Your task to perform on an android device: delete browsing data in the chrome app Image 0: 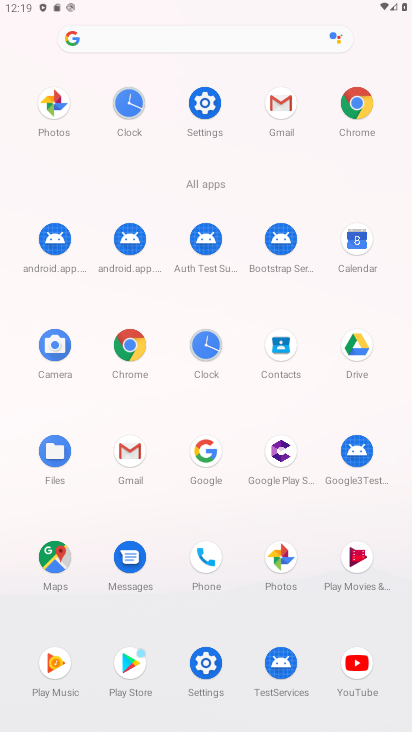
Step 0: click (126, 363)
Your task to perform on an android device: delete browsing data in the chrome app Image 1: 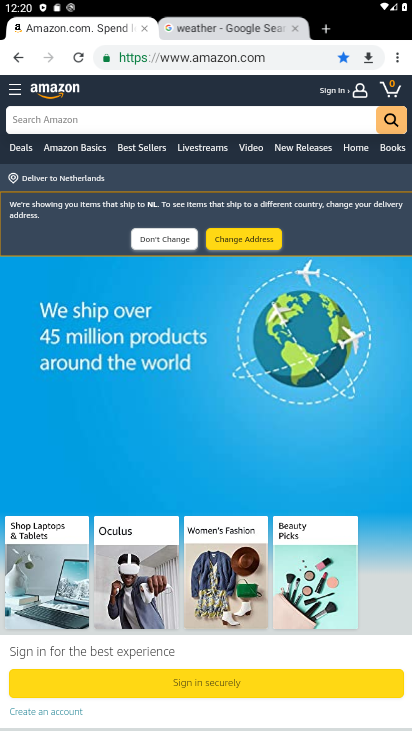
Step 1: click (399, 58)
Your task to perform on an android device: delete browsing data in the chrome app Image 2: 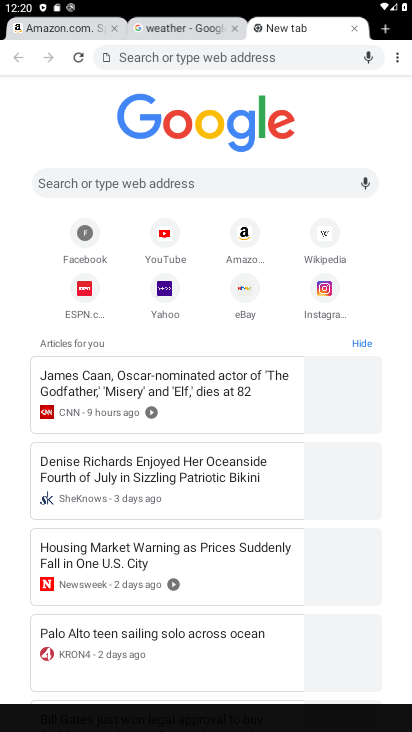
Step 2: click (399, 58)
Your task to perform on an android device: delete browsing data in the chrome app Image 3: 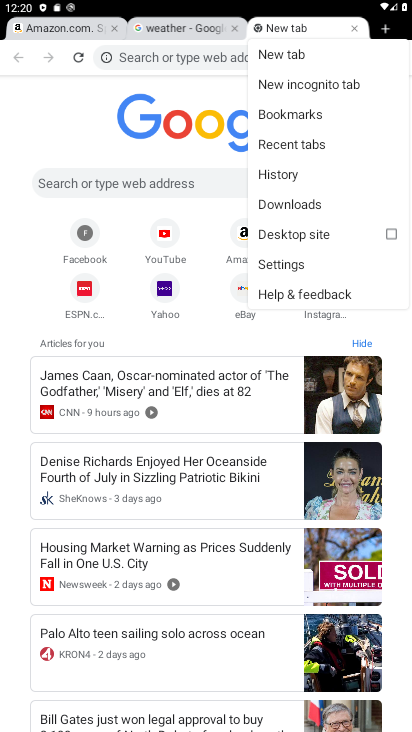
Step 3: click (294, 167)
Your task to perform on an android device: delete browsing data in the chrome app Image 4: 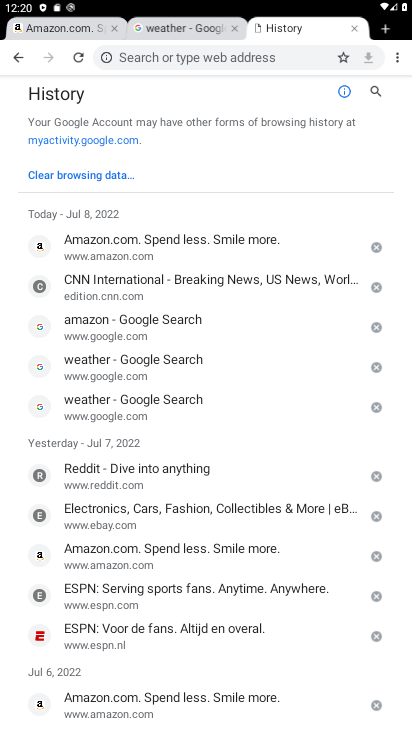
Step 4: click (125, 173)
Your task to perform on an android device: delete browsing data in the chrome app Image 5: 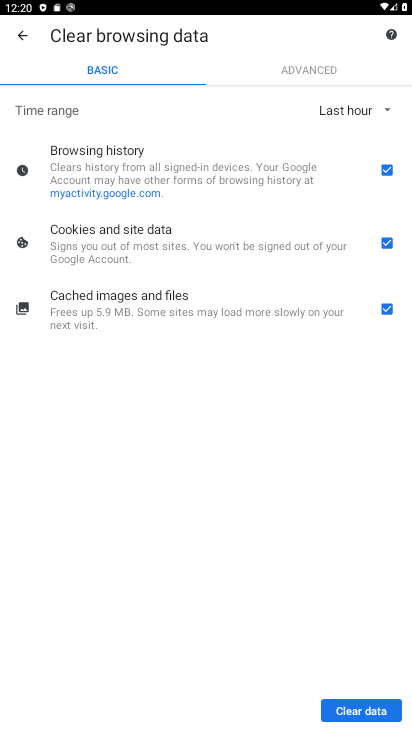
Step 5: click (356, 110)
Your task to perform on an android device: delete browsing data in the chrome app Image 6: 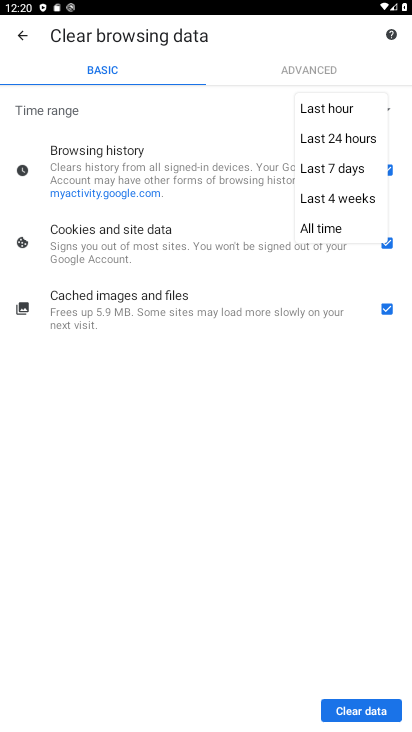
Step 6: click (331, 228)
Your task to perform on an android device: delete browsing data in the chrome app Image 7: 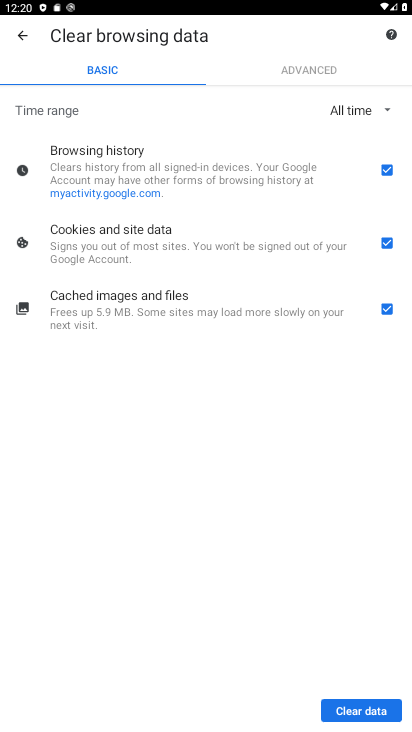
Step 7: click (379, 701)
Your task to perform on an android device: delete browsing data in the chrome app Image 8: 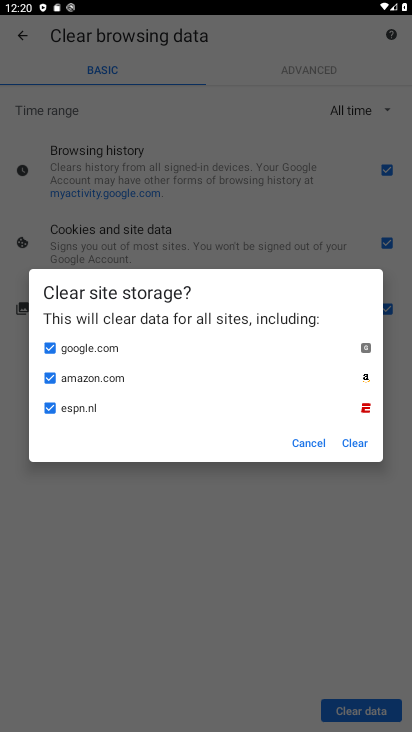
Step 8: click (342, 443)
Your task to perform on an android device: delete browsing data in the chrome app Image 9: 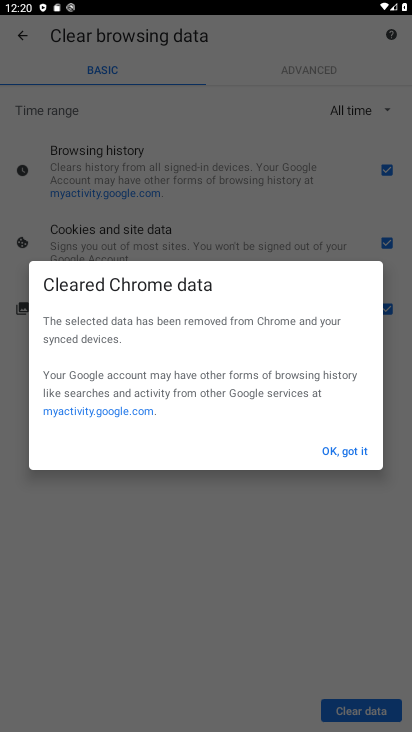
Step 9: click (351, 442)
Your task to perform on an android device: delete browsing data in the chrome app Image 10: 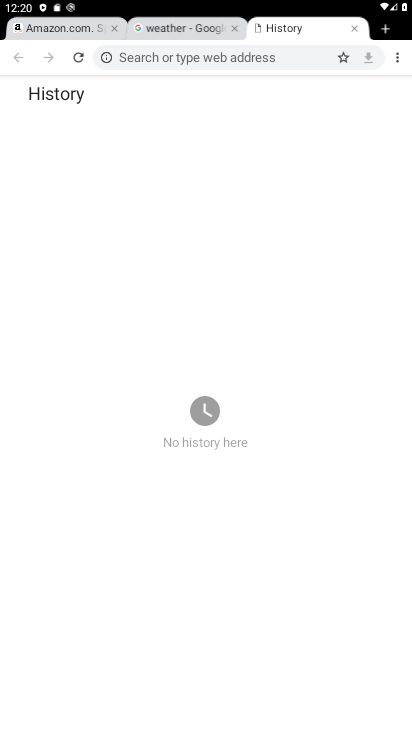
Step 10: task complete